Your task to perform on an android device: Turn off the flashlight Image 0: 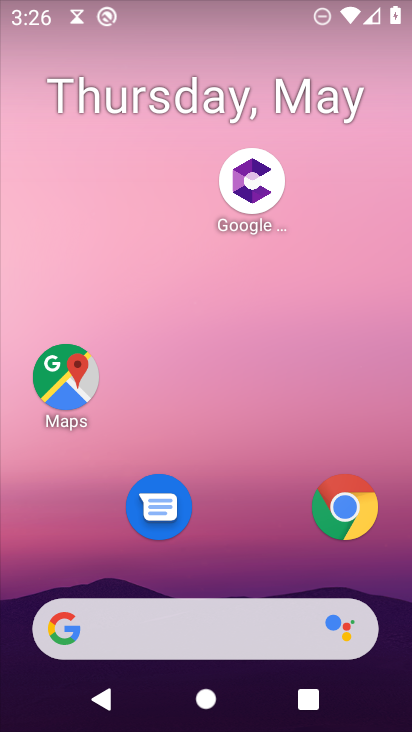
Step 0: press home button
Your task to perform on an android device: Turn off the flashlight Image 1: 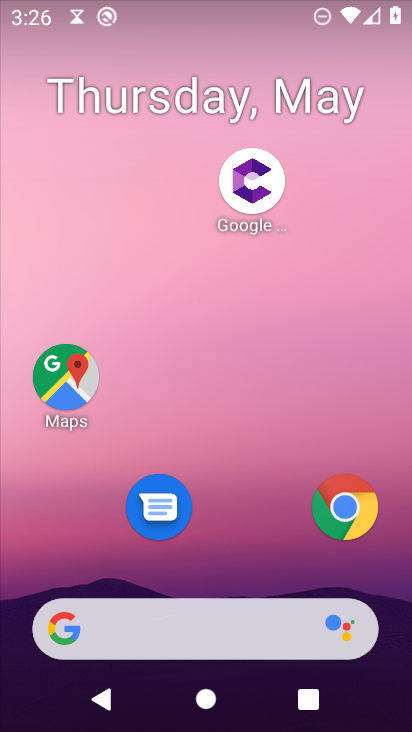
Step 1: task complete